Your task to perform on an android device: Search for seafood restaurants on Google Maps Image 0: 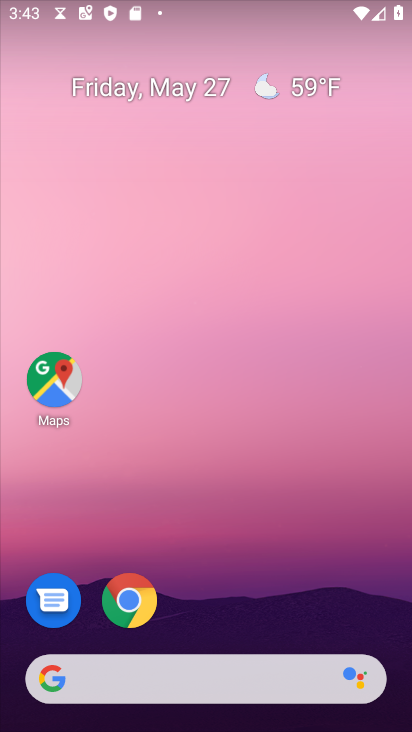
Step 0: click (54, 380)
Your task to perform on an android device: Search for seafood restaurants on Google Maps Image 1: 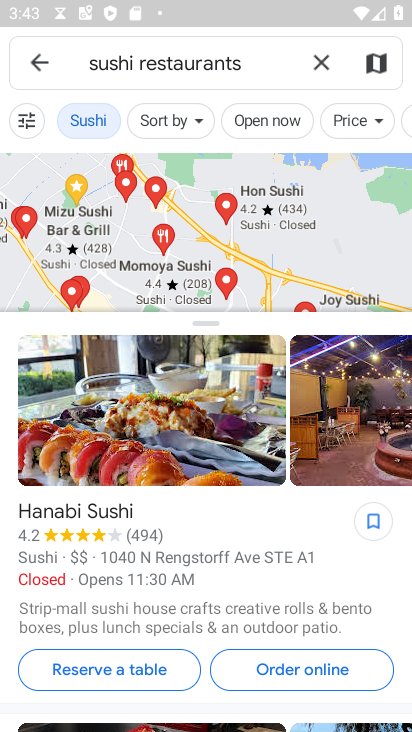
Step 1: click (322, 59)
Your task to perform on an android device: Search for seafood restaurants on Google Maps Image 2: 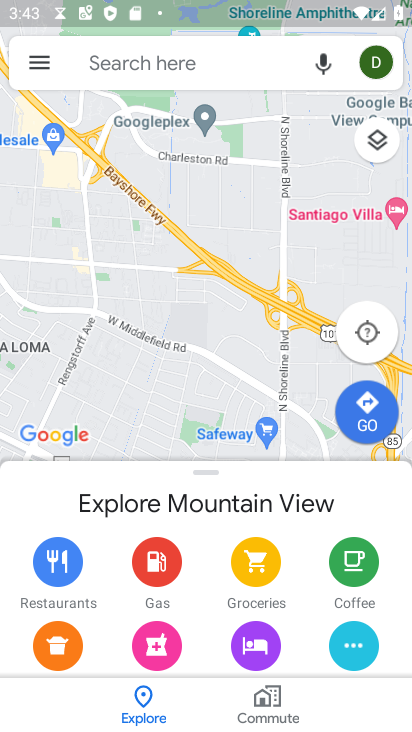
Step 2: click (222, 66)
Your task to perform on an android device: Search for seafood restaurants on Google Maps Image 3: 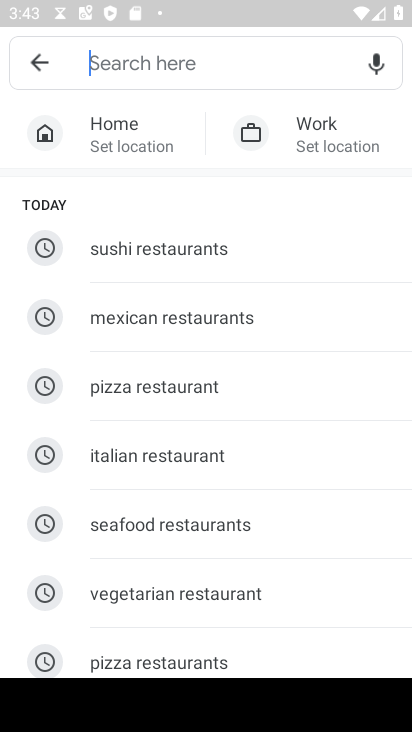
Step 3: type "seafood restaurants"
Your task to perform on an android device: Search for seafood restaurants on Google Maps Image 4: 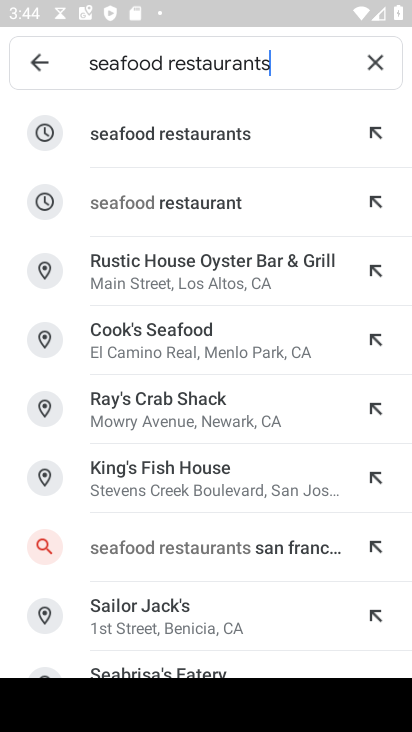
Step 4: click (224, 135)
Your task to perform on an android device: Search for seafood restaurants on Google Maps Image 5: 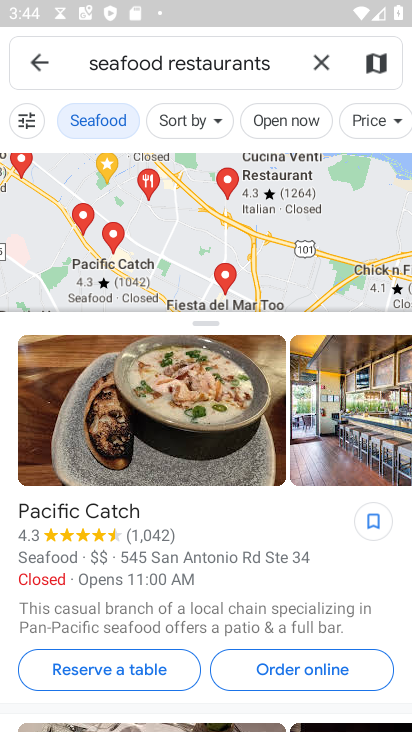
Step 5: task complete